Your task to perform on an android device: Open my contact list Image 0: 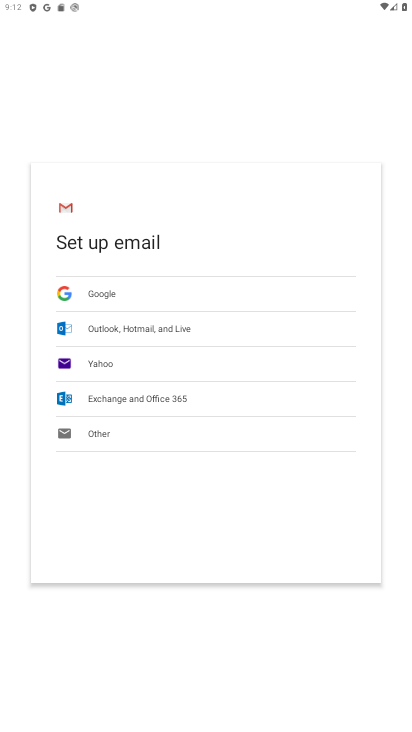
Step 0: press home button
Your task to perform on an android device: Open my contact list Image 1: 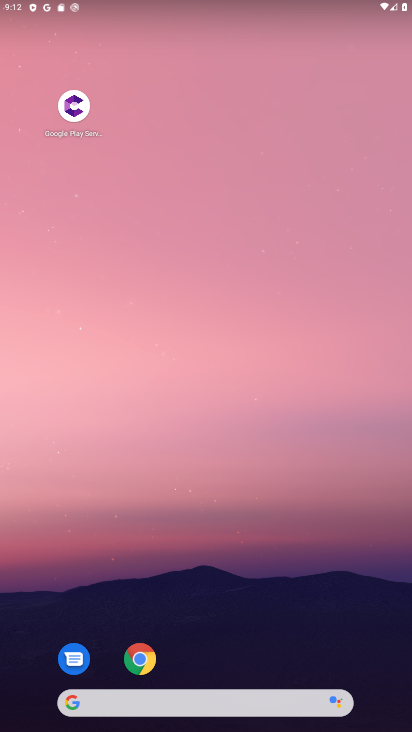
Step 1: drag from (287, 636) to (242, 91)
Your task to perform on an android device: Open my contact list Image 2: 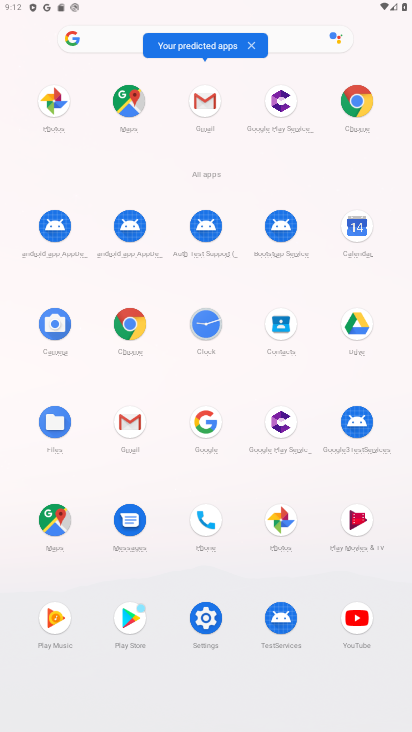
Step 2: click (280, 321)
Your task to perform on an android device: Open my contact list Image 3: 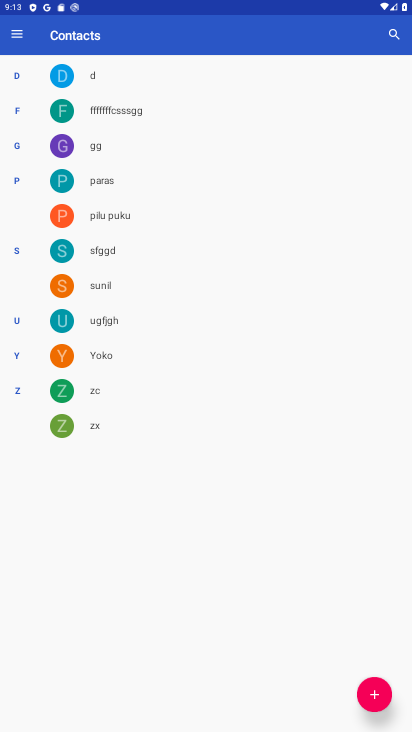
Step 3: task complete